Your task to perform on an android device: toggle airplane mode Image 0: 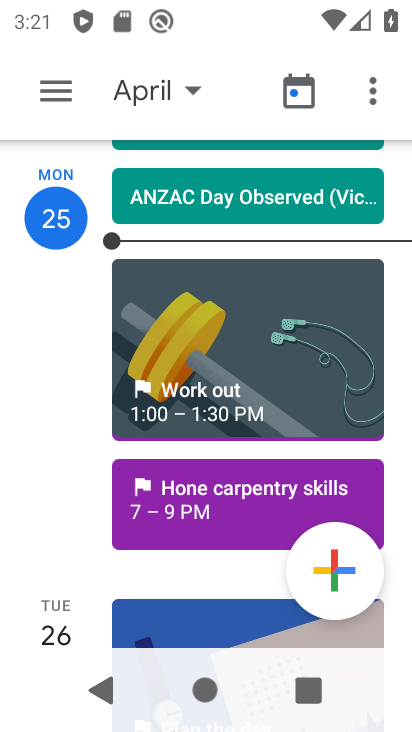
Step 0: drag from (249, 0) to (172, 553)
Your task to perform on an android device: toggle airplane mode Image 1: 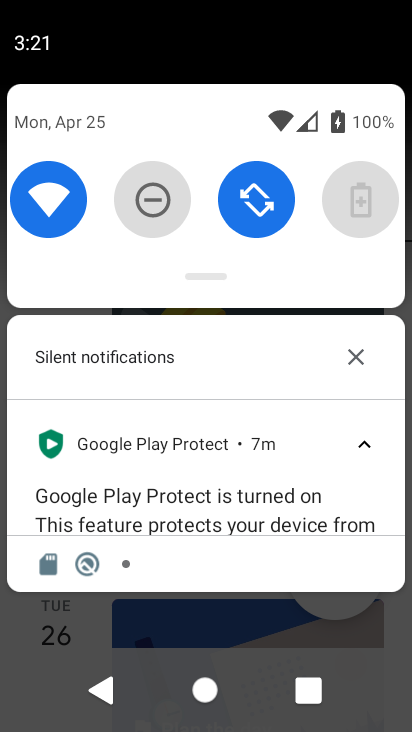
Step 1: drag from (238, 125) to (238, 642)
Your task to perform on an android device: toggle airplane mode Image 2: 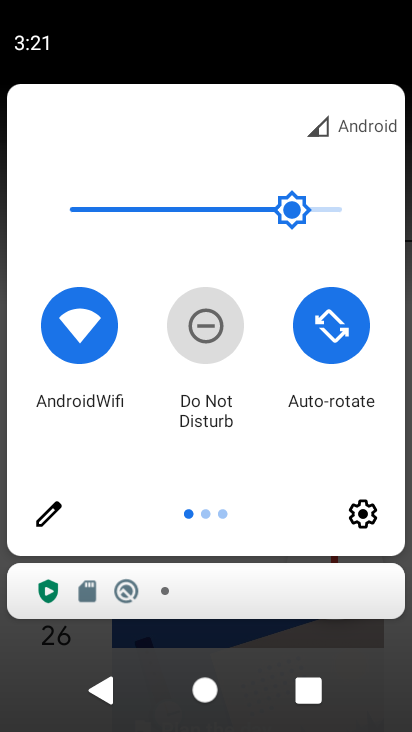
Step 2: drag from (329, 467) to (35, 419)
Your task to perform on an android device: toggle airplane mode Image 3: 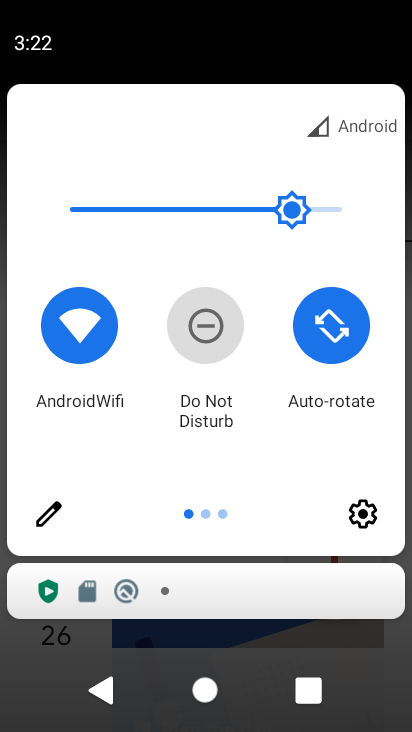
Step 3: drag from (351, 478) to (6, 392)
Your task to perform on an android device: toggle airplane mode Image 4: 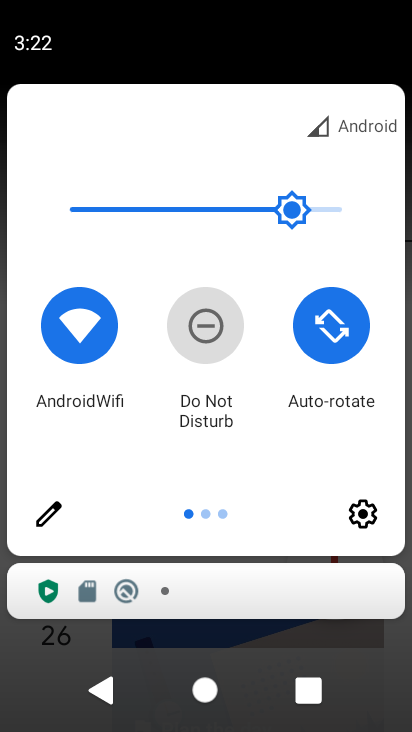
Step 4: drag from (333, 477) to (4, 478)
Your task to perform on an android device: toggle airplane mode Image 5: 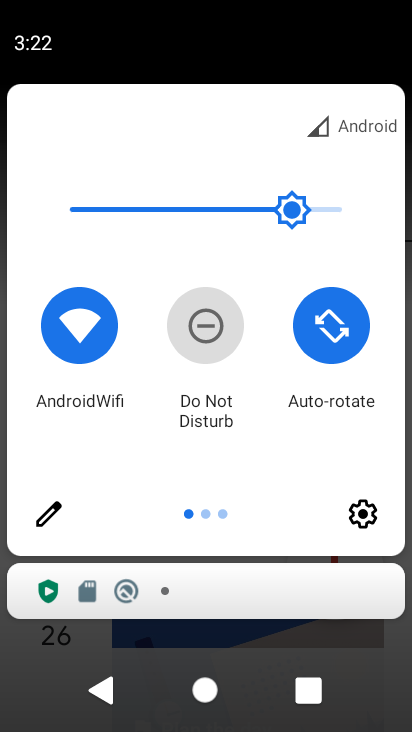
Step 5: drag from (314, 452) to (70, 473)
Your task to perform on an android device: toggle airplane mode Image 6: 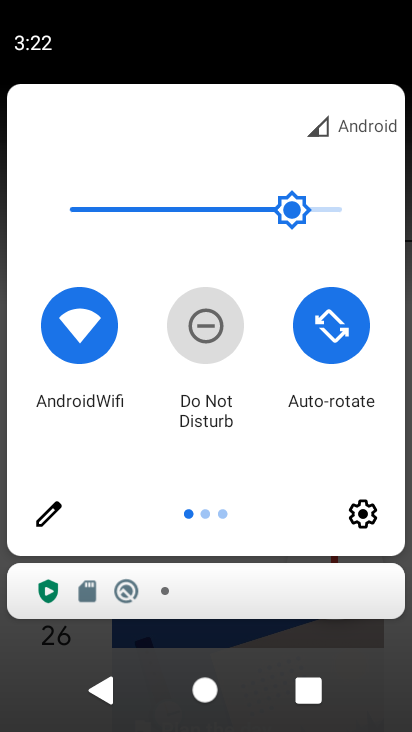
Step 6: drag from (385, 430) to (31, 489)
Your task to perform on an android device: toggle airplane mode Image 7: 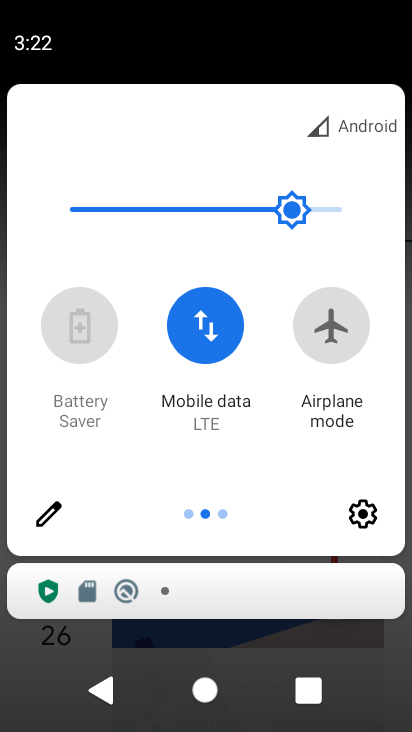
Step 7: click (349, 323)
Your task to perform on an android device: toggle airplane mode Image 8: 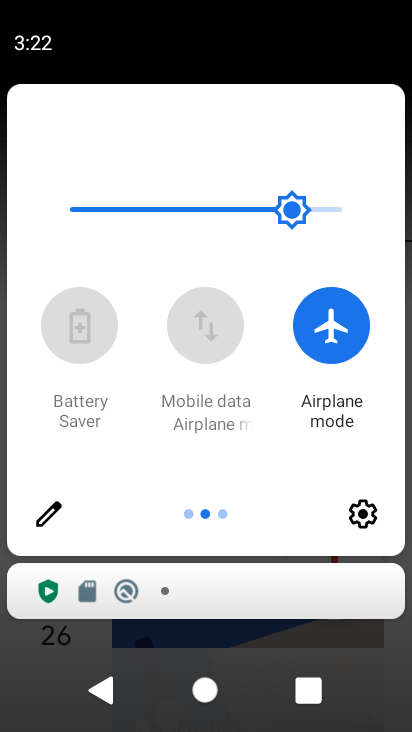
Step 8: click (349, 323)
Your task to perform on an android device: toggle airplane mode Image 9: 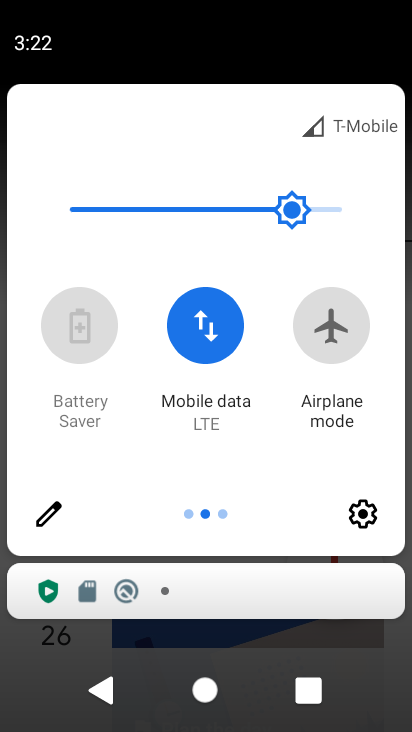
Step 9: task complete